Your task to perform on an android device: Open CNN.com Image 0: 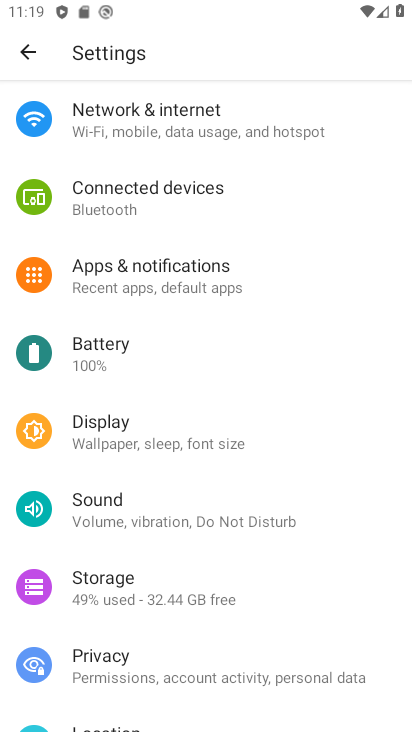
Step 0: press home button
Your task to perform on an android device: Open CNN.com Image 1: 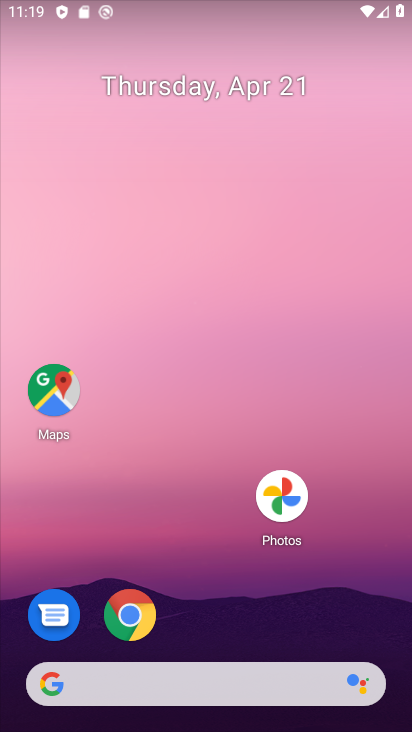
Step 1: click (188, 176)
Your task to perform on an android device: Open CNN.com Image 2: 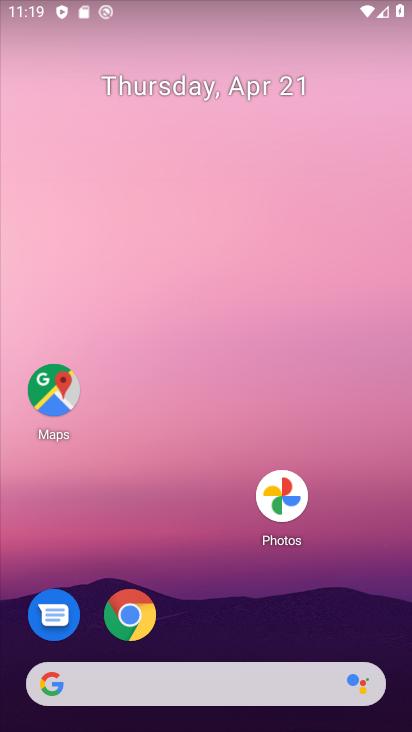
Step 2: drag from (310, 629) to (169, 107)
Your task to perform on an android device: Open CNN.com Image 3: 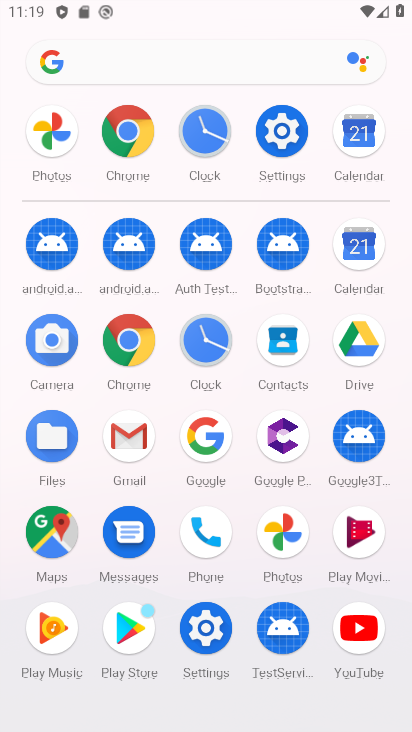
Step 3: click (120, 340)
Your task to perform on an android device: Open CNN.com Image 4: 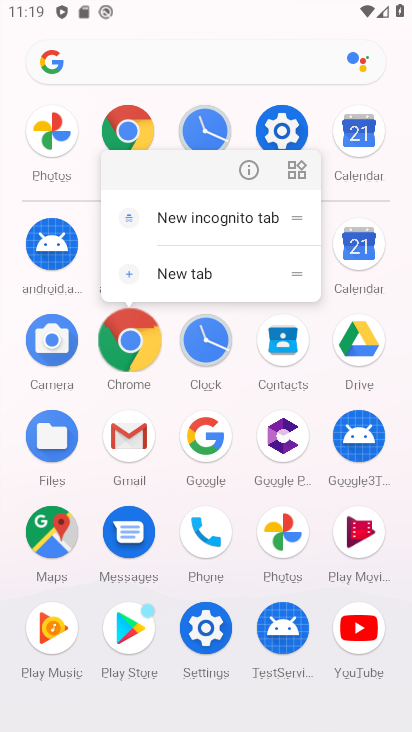
Step 4: click (121, 338)
Your task to perform on an android device: Open CNN.com Image 5: 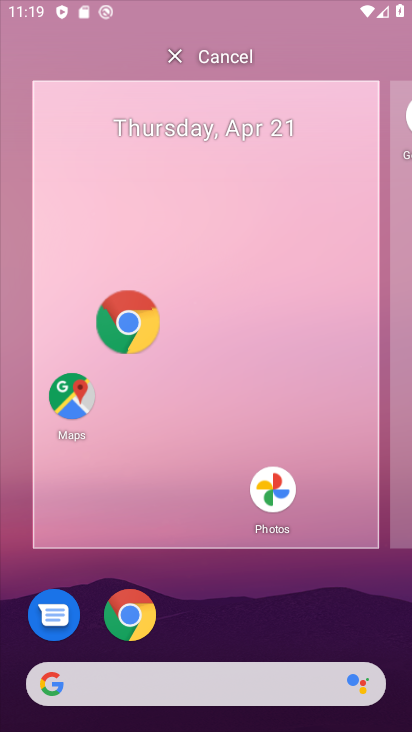
Step 5: click (129, 324)
Your task to perform on an android device: Open CNN.com Image 6: 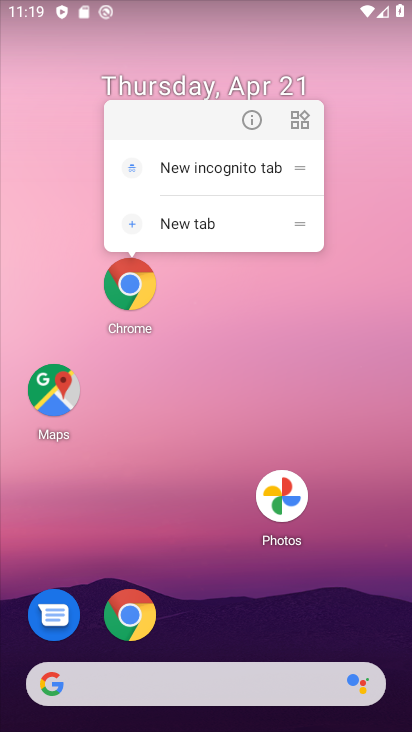
Step 6: click (119, 280)
Your task to perform on an android device: Open CNN.com Image 7: 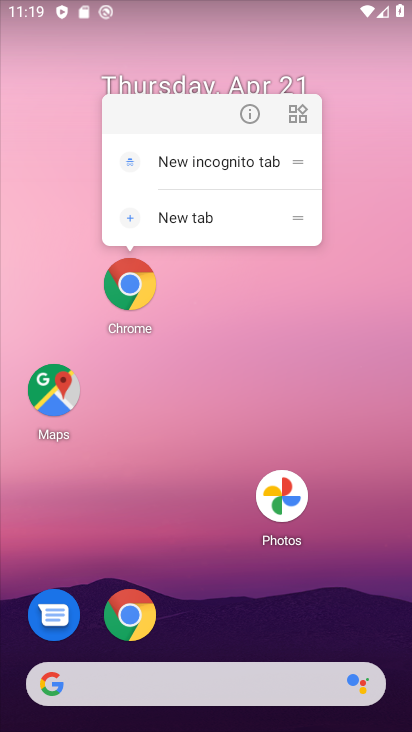
Step 7: click (124, 278)
Your task to perform on an android device: Open CNN.com Image 8: 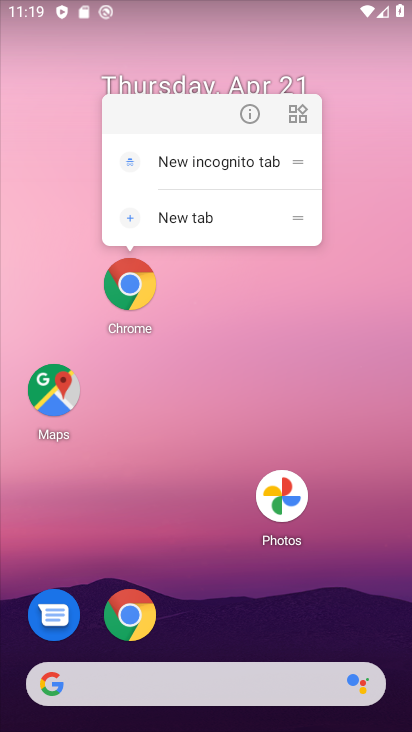
Step 8: drag from (270, 578) to (101, 3)
Your task to perform on an android device: Open CNN.com Image 9: 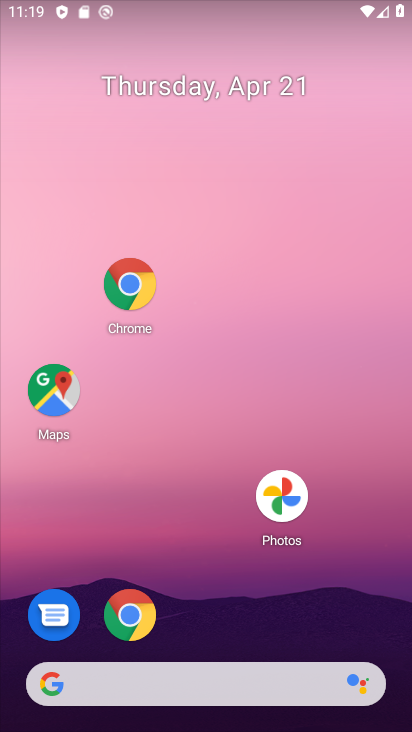
Step 9: drag from (253, 491) to (147, 18)
Your task to perform on an android device: Open CNN.com Image 10: 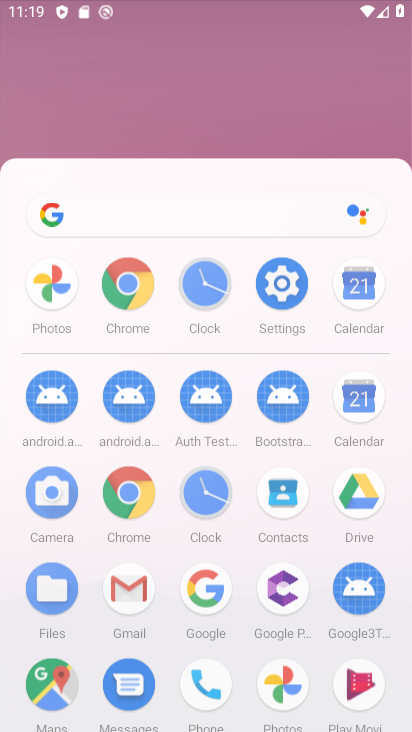
Step 10: drag from (237, 540) to (123, 7)
Your task to perform on an android device: Open CNN.com Image 11: 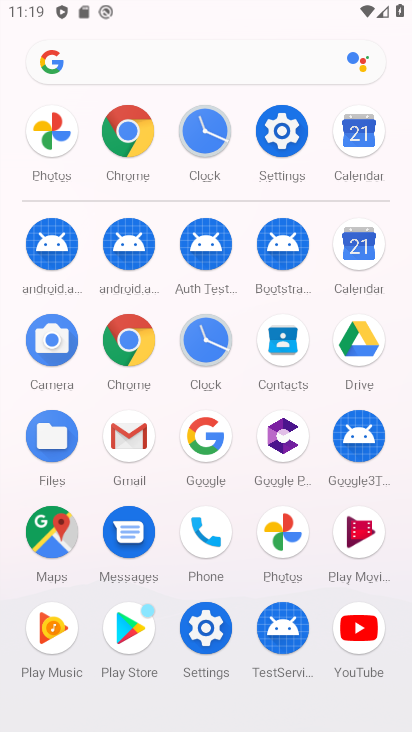
Step 11: click (118, 133)
Your task to perform on an android device: Open CNN.com Image 12: 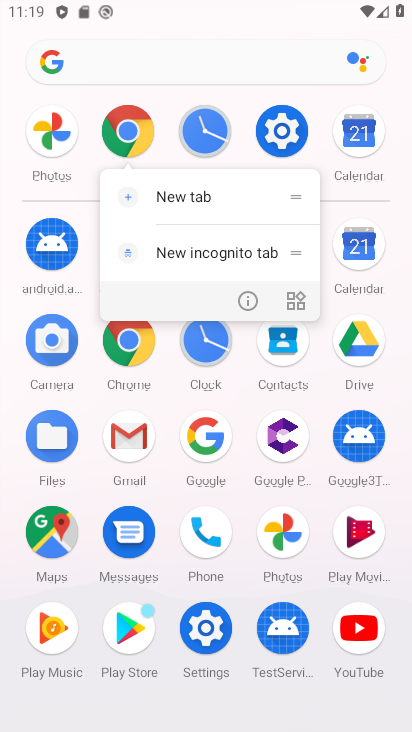
Step 12: click (120, 136)
Your task to perform on an android device: Open CNN.com Image 13: 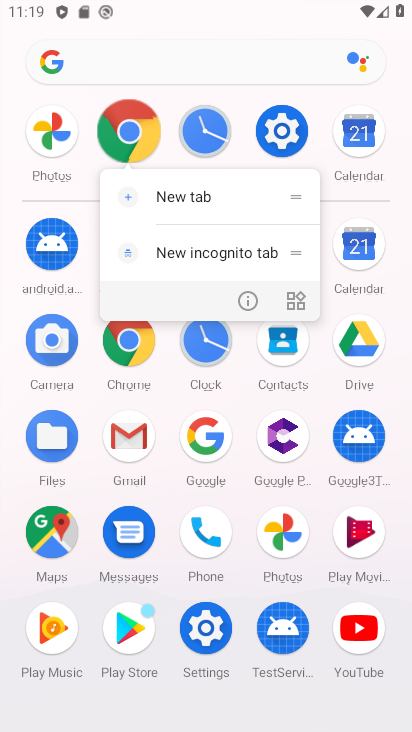
Step 13: click (121, 137)
Your task to perform on an android device: Open CNN.com Image 14: 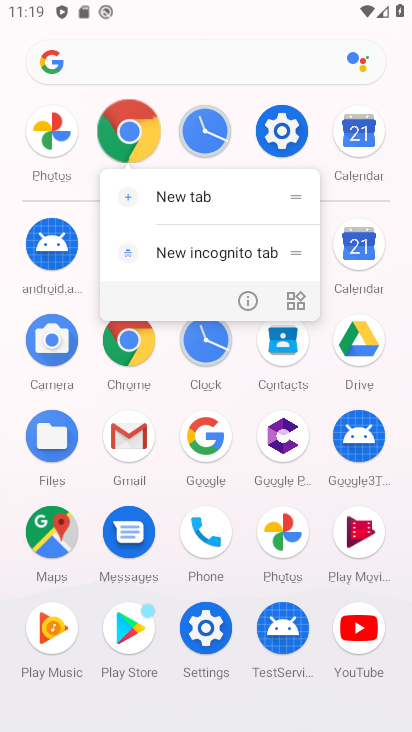
Step 14: click (121, 137)
Your task to perform on an android device: Open CNN.com Image 15: 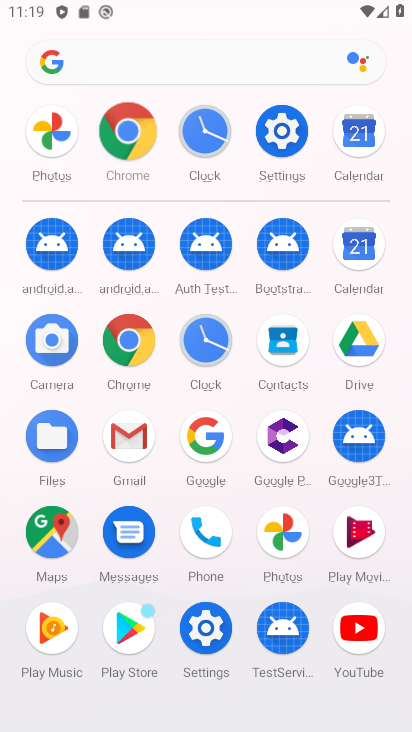
Step 15: click (121, 137)
Your task to perform on an android device: Open CNN.com Image 16: 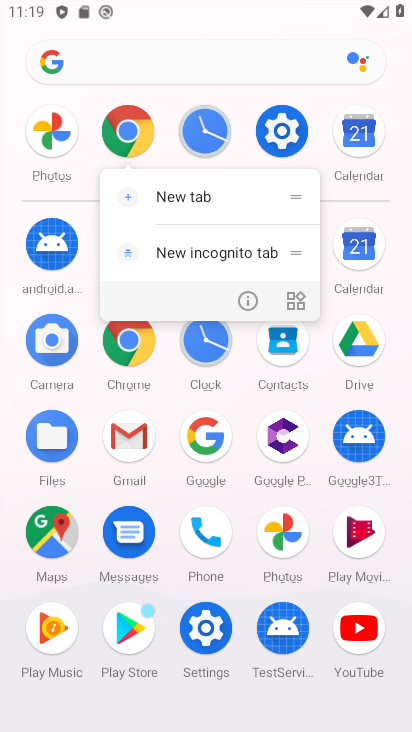
Step 16: click (125, 140)
Your task to perform on an android device: Open CNN.com Image 17: 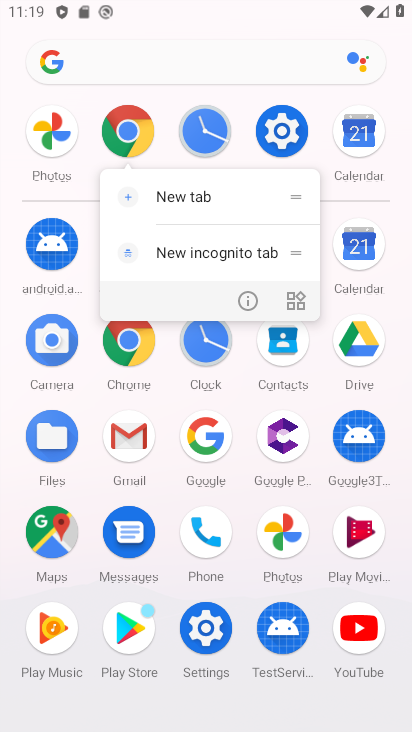
Step 17: click (170, 203)
Your task to perform on an android device: Open CNN.com Image 18: 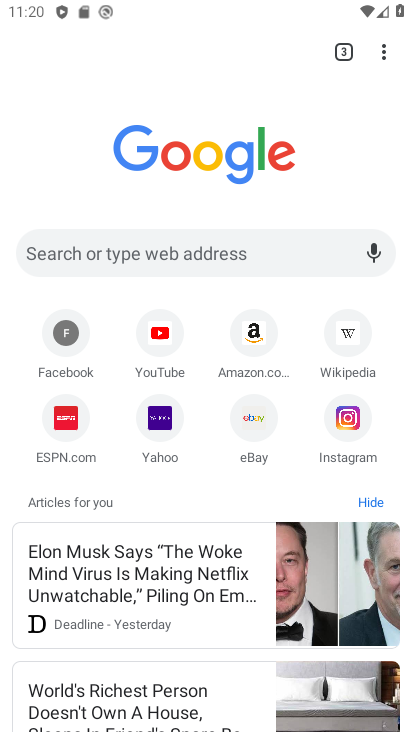
Step 18: click (93, 250)
Your task to perform on an android device: Open CNN.com Image 19: 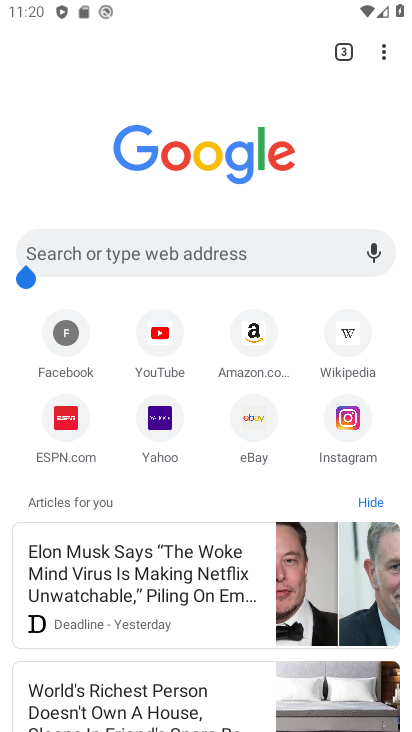
Step 19: click (93, 250)
Your task to perform on an android device: Open CNN.com Image 20: 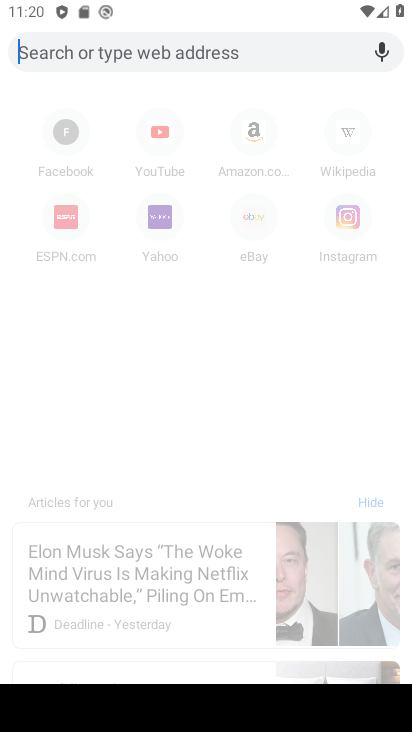
Step 20: type "www.CNN.com"
Your task to perform on an android device: Open CNN.com Image 21: 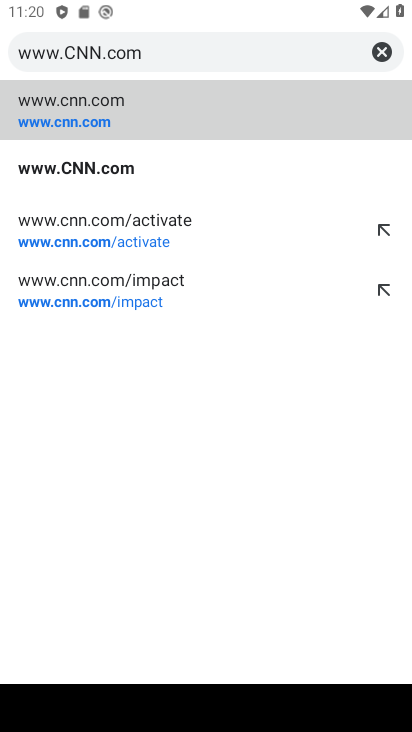
Step 21: click (97, 115)
Your task to perform on an android device: Open CNN.com Image 22: 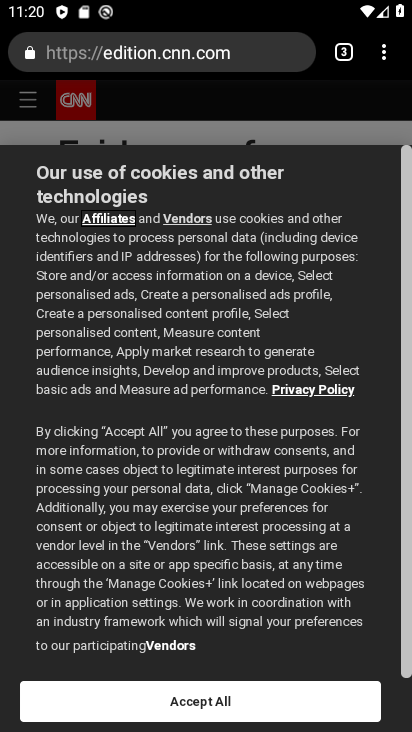
Step 22: task complete